Your task to perform on an android device: Show me popular videos on Youtube Image 0: 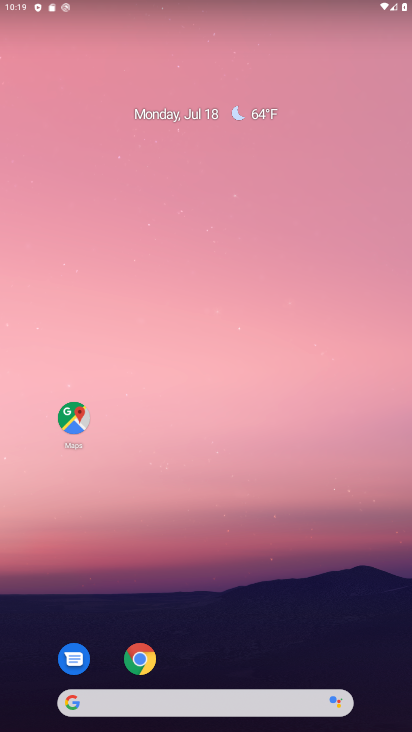
Step 0: drag from (220, 664) to (231, 106)
Your task to perform on an android device: Show me popular videos on Youtube Image 1: 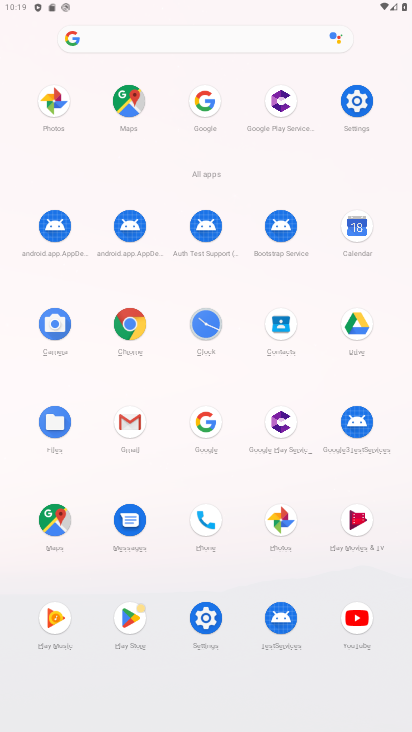
Step 1: click (356, 621)
Your task to perform on an android device: Show me popular videos on Youtube Image 2: 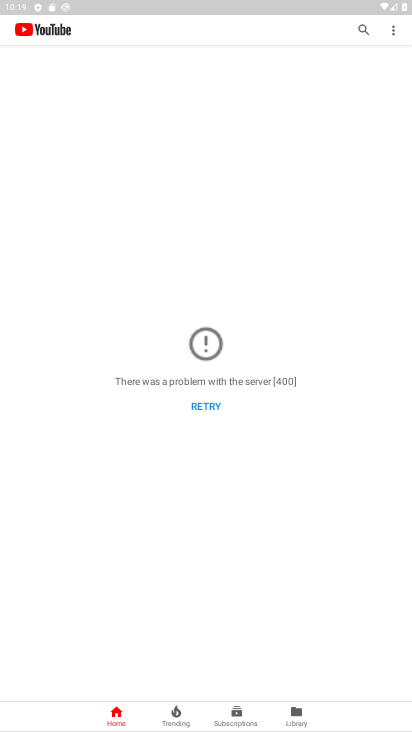
Step 2: click (360, 27)
Your task to perform on an android device: Show me popular videos on Youtube Image 3: 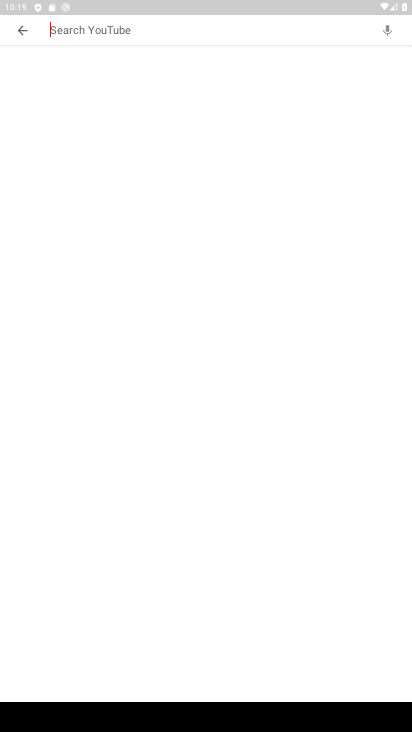
Step 3: task complete